Your task to perform on an android device: Search for hotels in Miami Image 0: 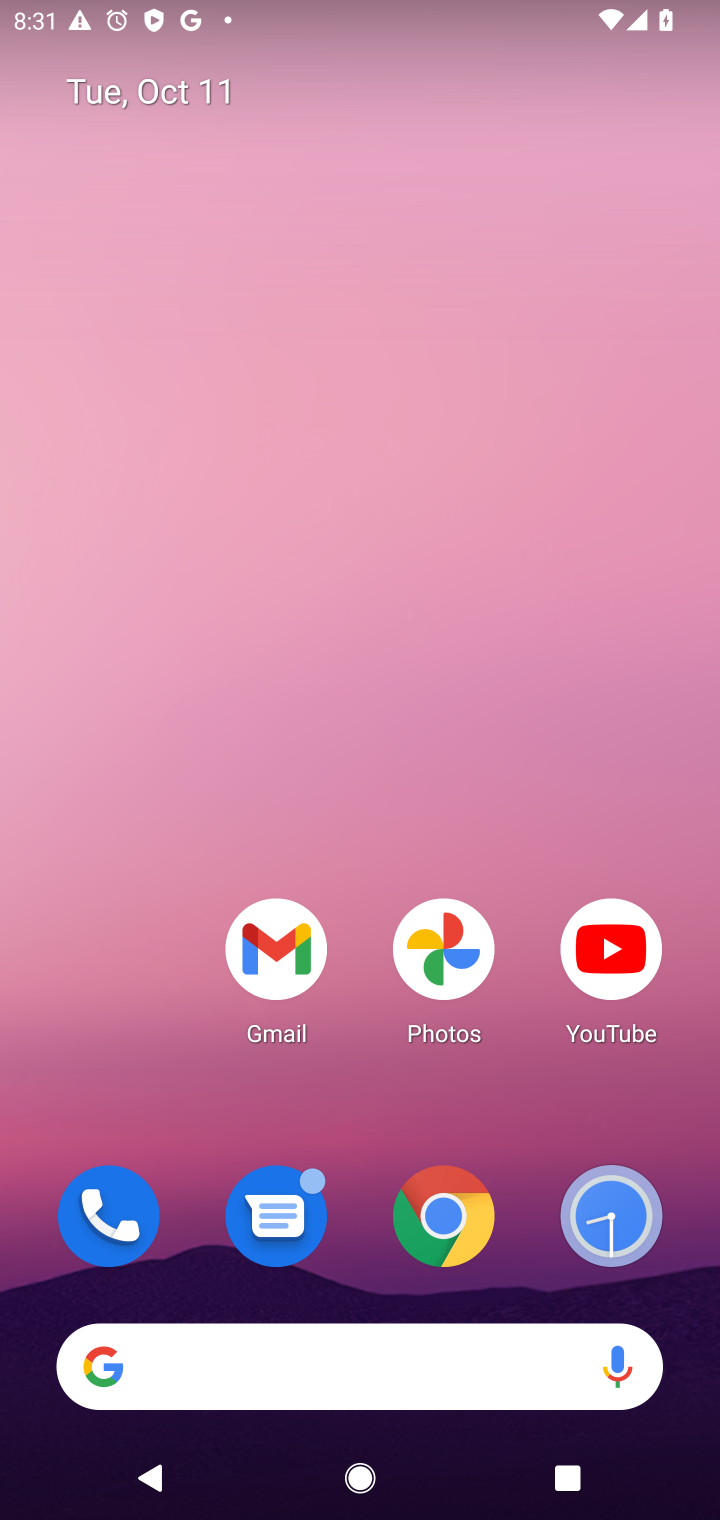
Step 0: drag from (352, 853) to (311, 183)
Your task to perform on an android device: Search for hotels in Miami Image 1: 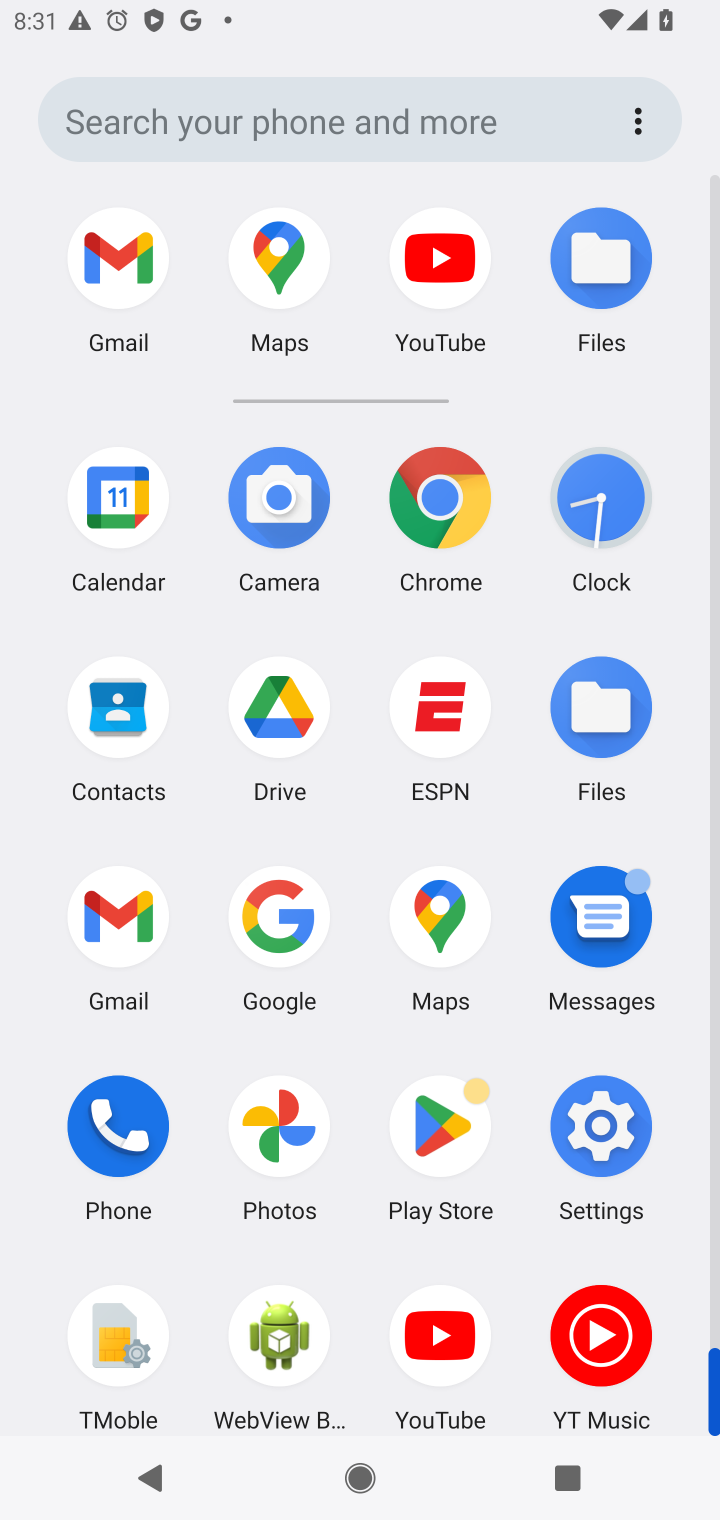
Step 1: click (392, 875)
Your task to perform on an android device: Search for hotels in Miami Image 2: 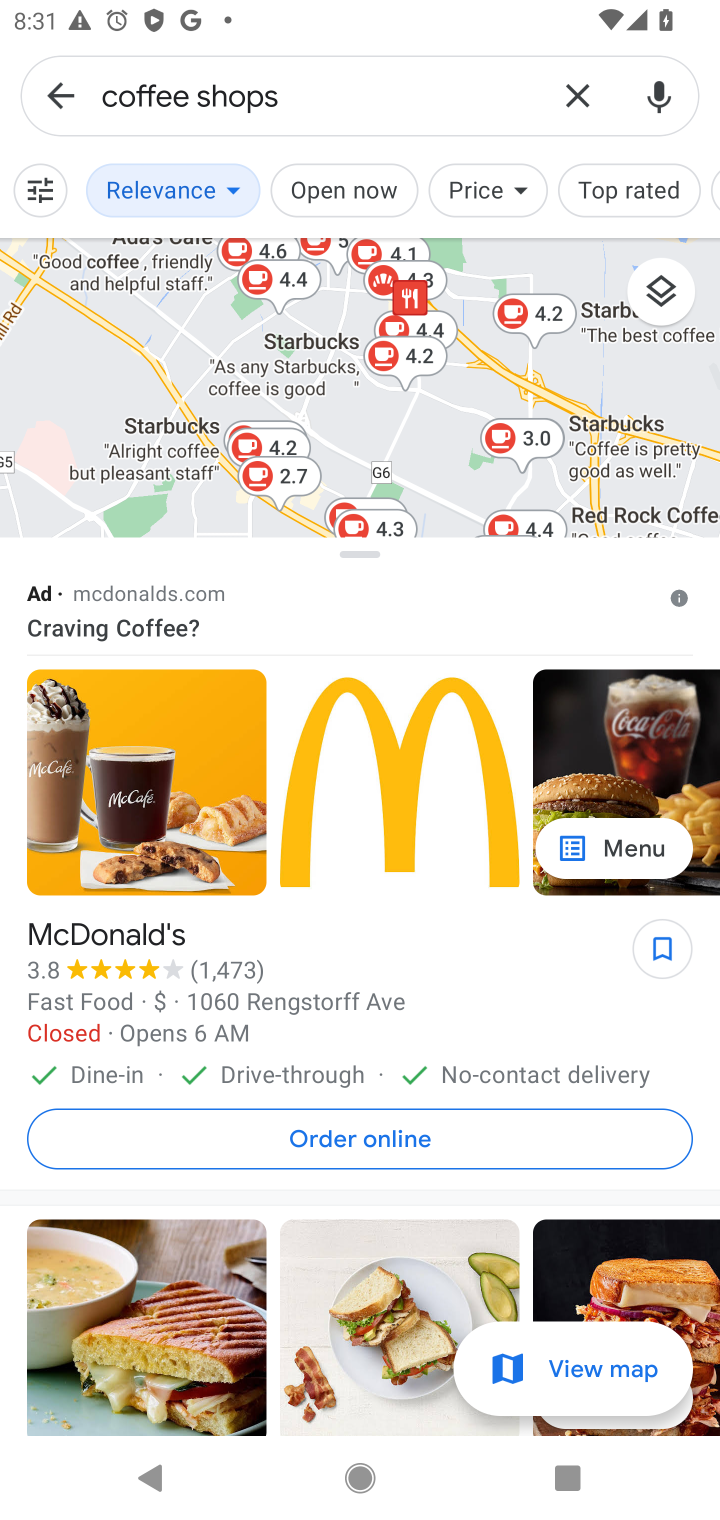
Step 2: click (570, 96)
Your task to perform on an android device: Search for hotels in Miami Image 3: 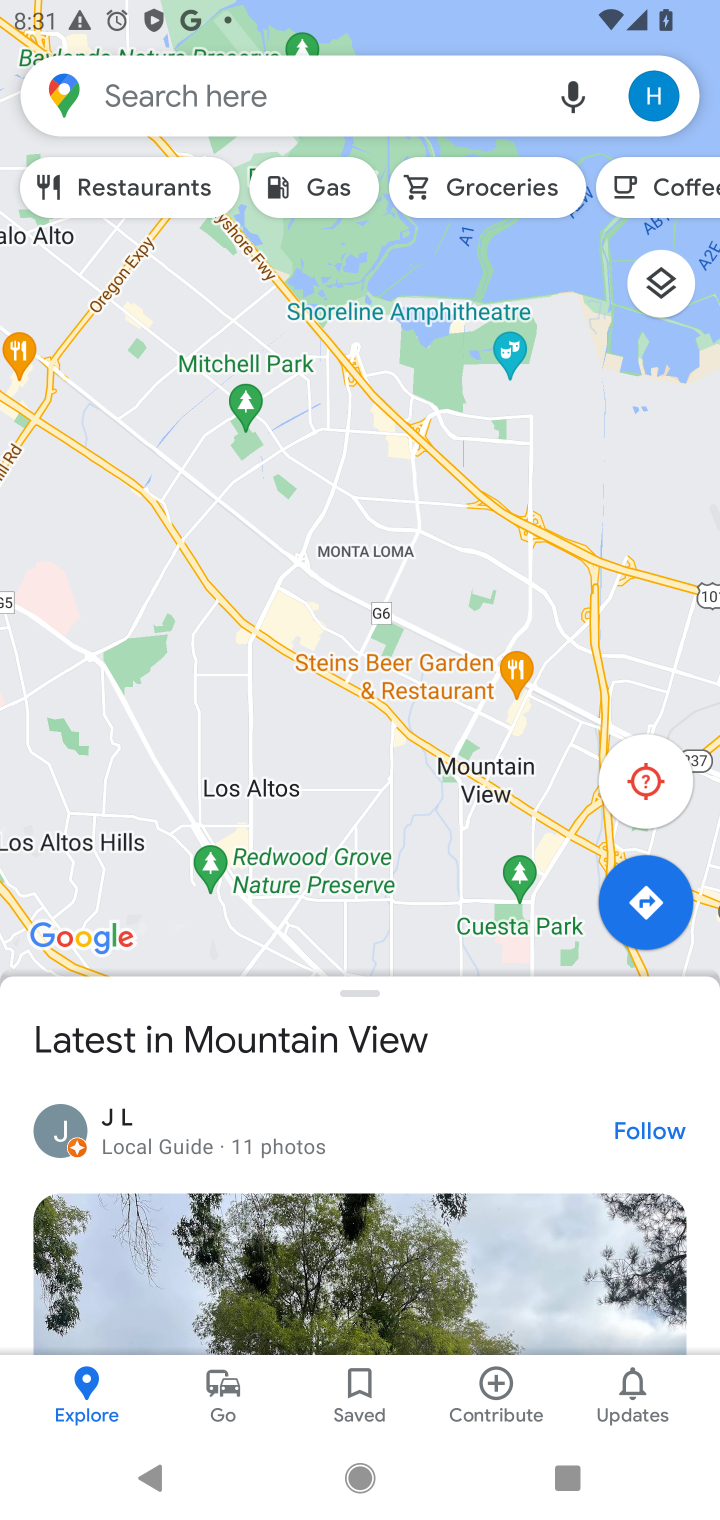
Step 3: type "hotels in Miami"
Your task to perform on an android device: Search for hotels in Miami Image 4: 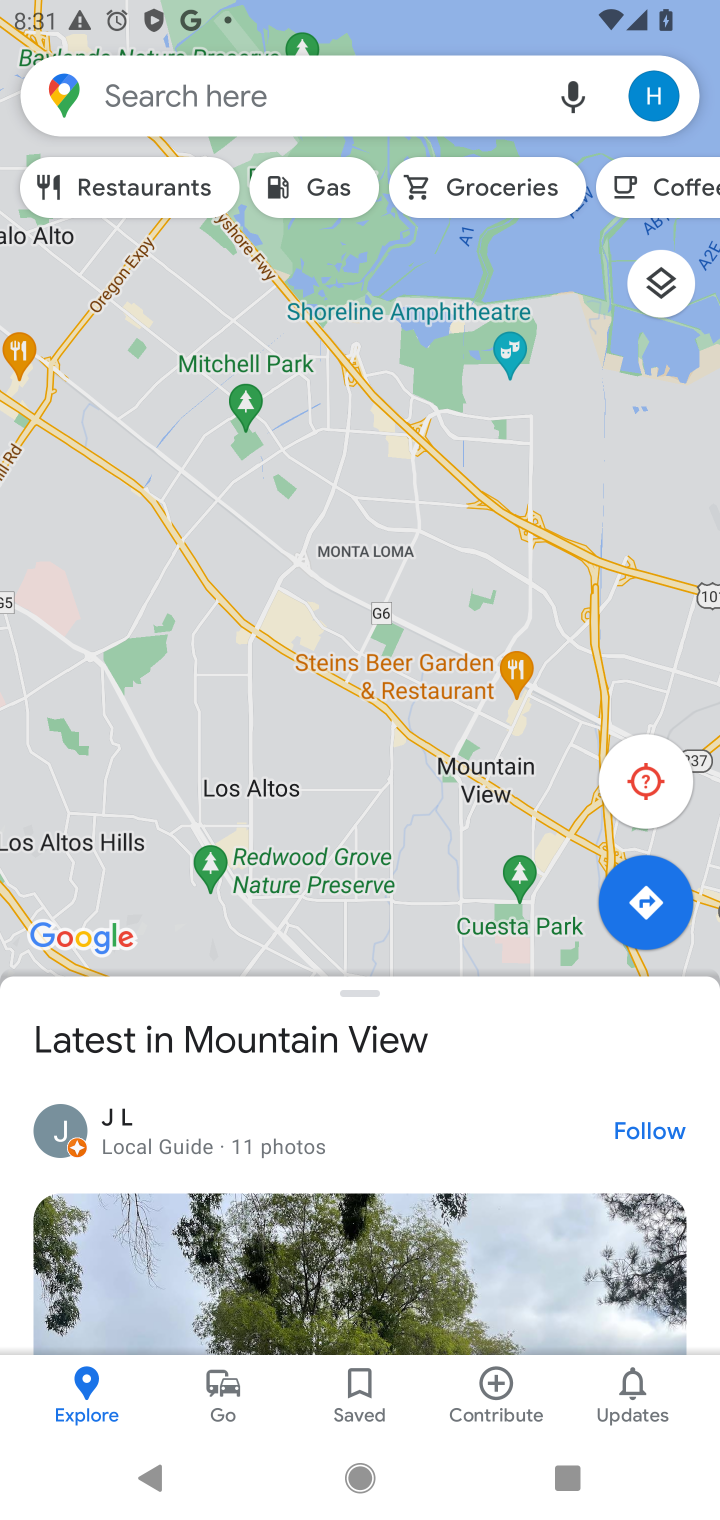
Step 4: click (363, 92)
Your task to perform on an android device: Search for hotels in Miami Image 5: 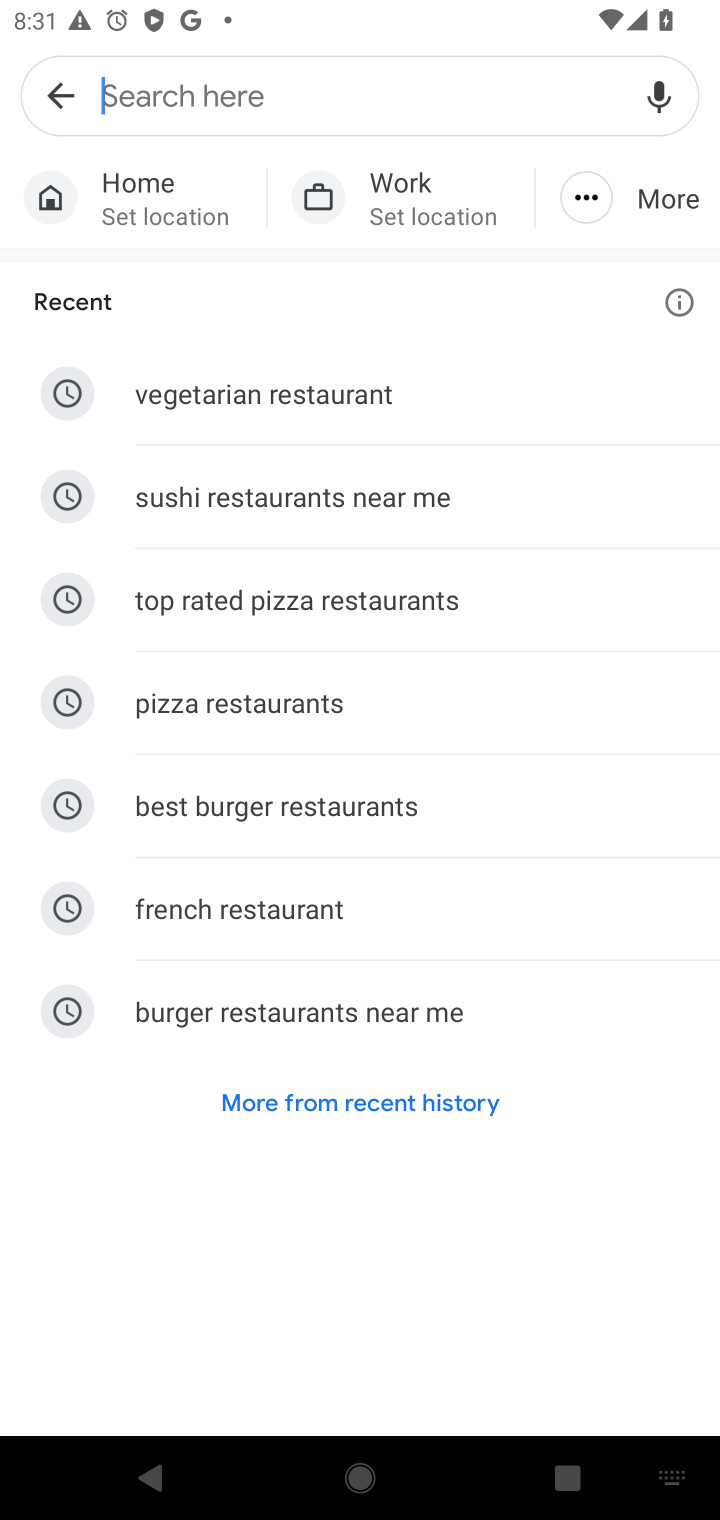
Step 5: type "hotels in Miami"
Your task to perform on an android device: Search for hotels in Miami Image 6: 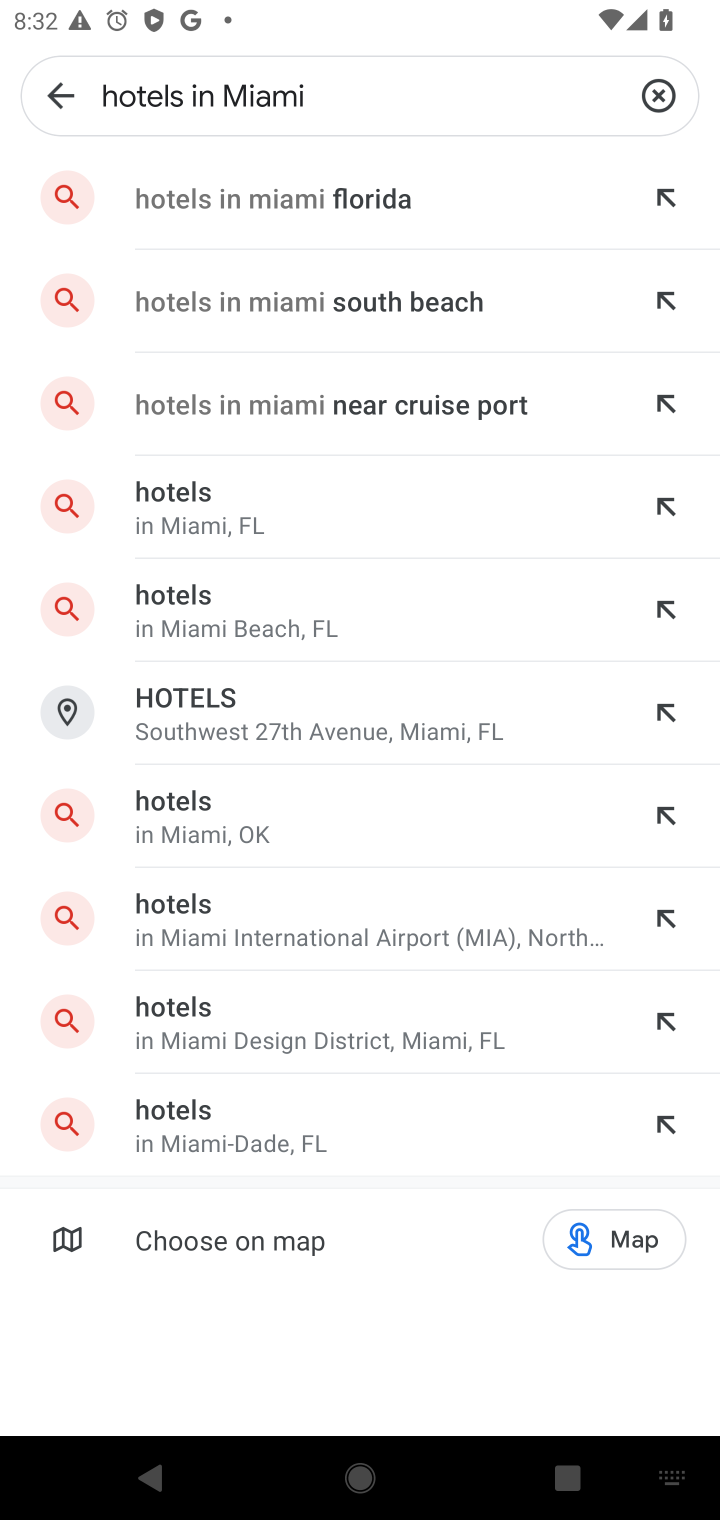
Step 6: press enter
Your task to perform on an android device: Search for hotels in Miami Image 7: 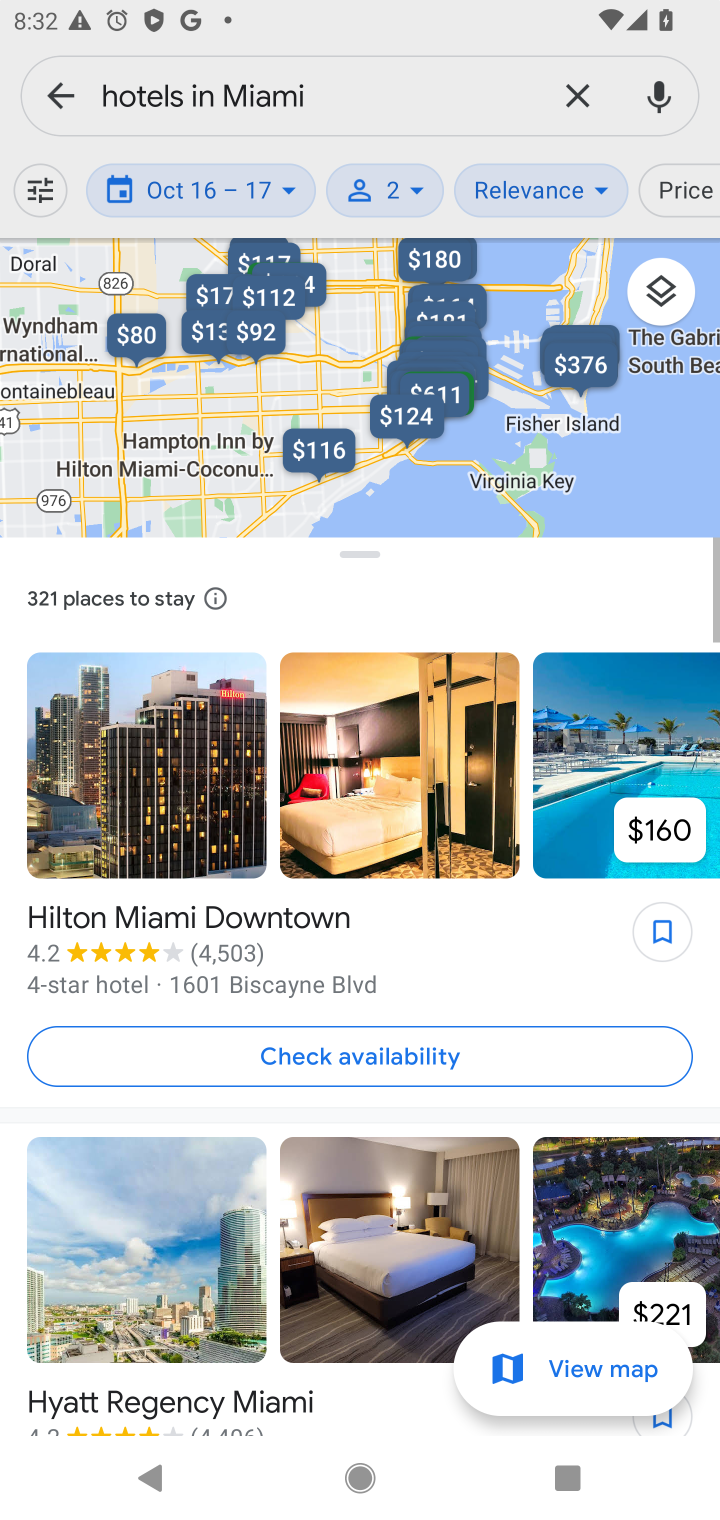
Step 7: task complete